Your task to perform on an android device: turn on the 24-hour format for clock Image 0: 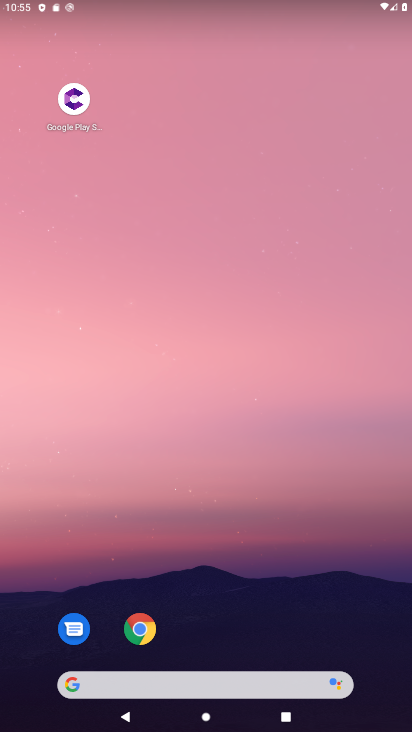
Step 0: press home button
Your task to perform on an android device: turn on the 24-hour format for clock Image 1: 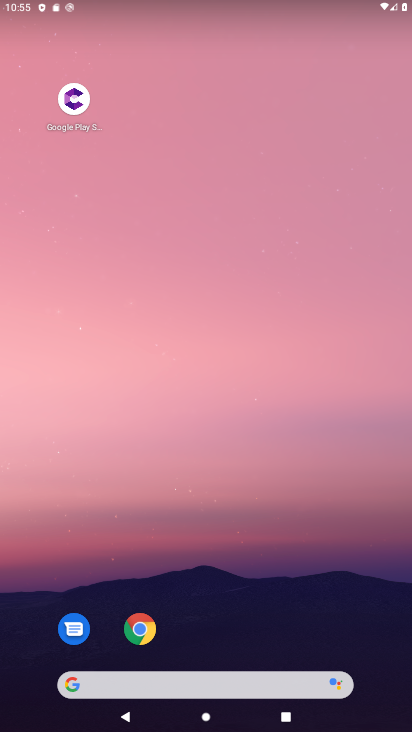
Step 1: drag from (227, 655) to (240, 17)
Your task to perform on an android device: turn on the 24-hour format for clock Image 2: 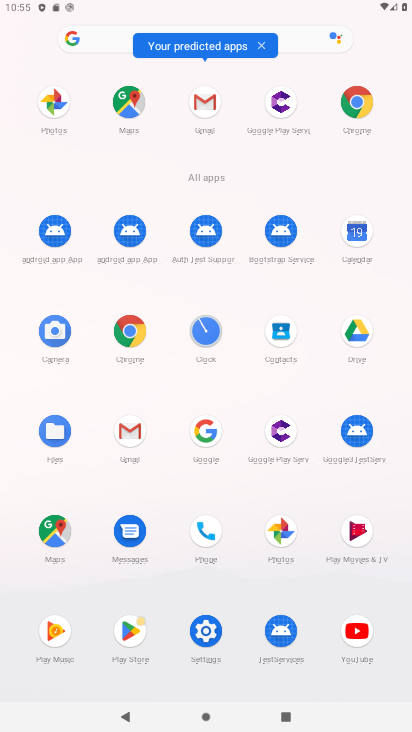
Step 2: click (201, 324)
Your task to perform on an android device: turn on the 24-hour format for clock Image 3: 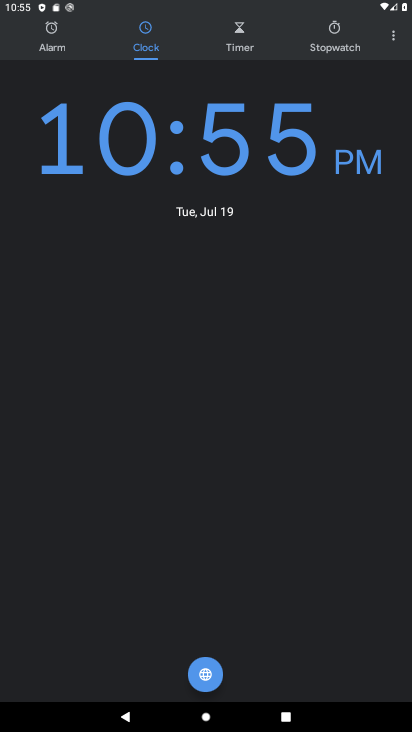
Step 3: click (394, 36)
Your task to perform on an android device: turn on the 24-hour format for clock Image 4: 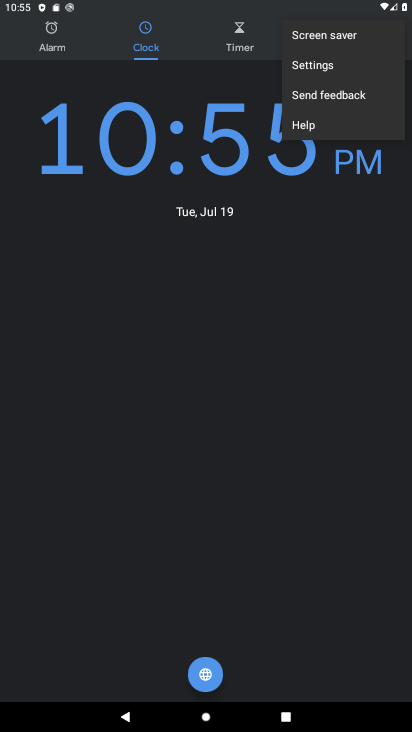
Step 4: click (323, 66)
Your task to perform on an android device: turn on the 24-hour format for clock Image 5: 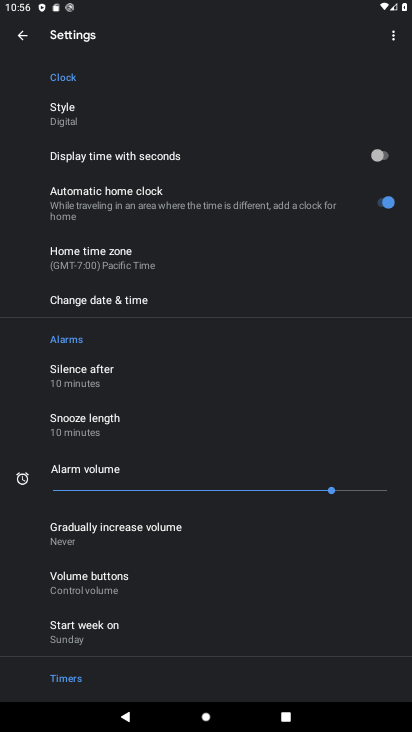
Step 5: click (137, 302)
Your task to perform on an android device: turn on the 24-hour format for clock Image 6: 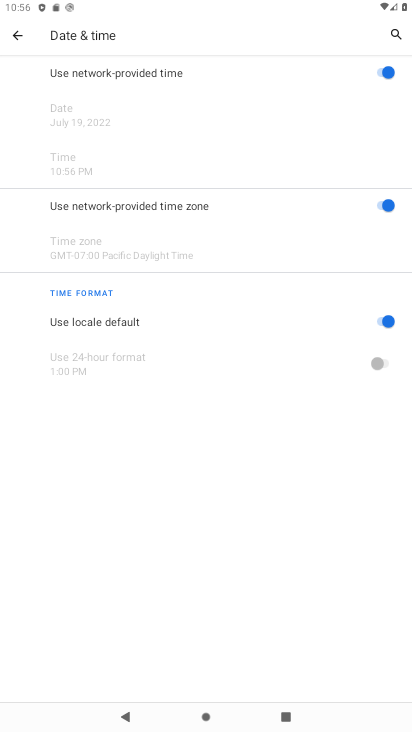
Step 6: click (381, 318)
Your task to perform on an android device: turn on the 24-hour format for clock Image 7: 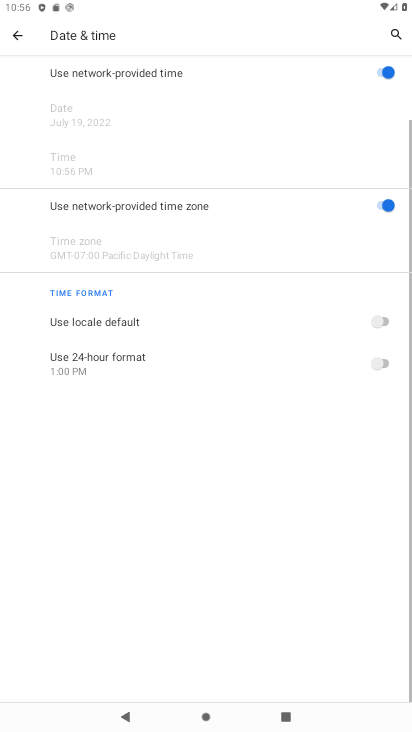
Step 7: click (382, 362)
Your task to perform on an android device: turn on the 24-hour format for clock Image 8: 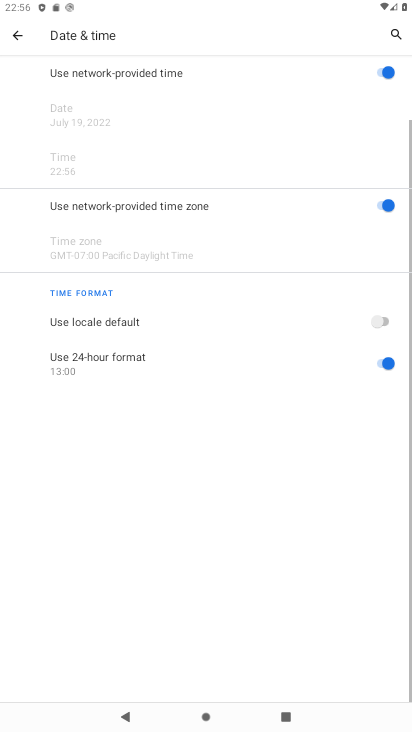
Step 8: task complete